Your task to perform on an android device: toggle show notifications on the lock screen Image 0: 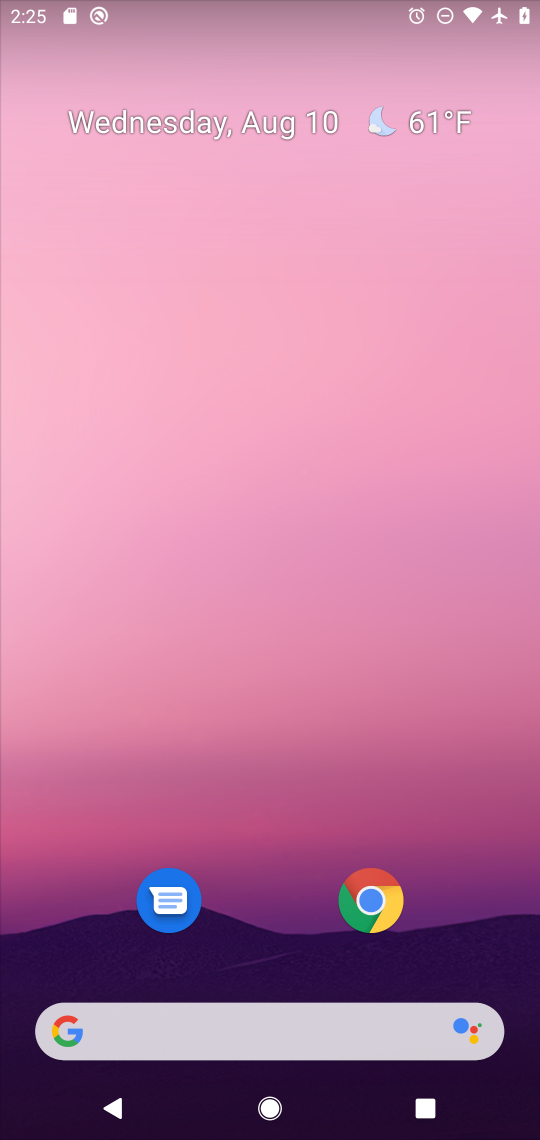
Step 0: drag from (295, 870) to (336, 2)
Your task to perform on an android device: toggle show notifications on the lock screen Image 1: 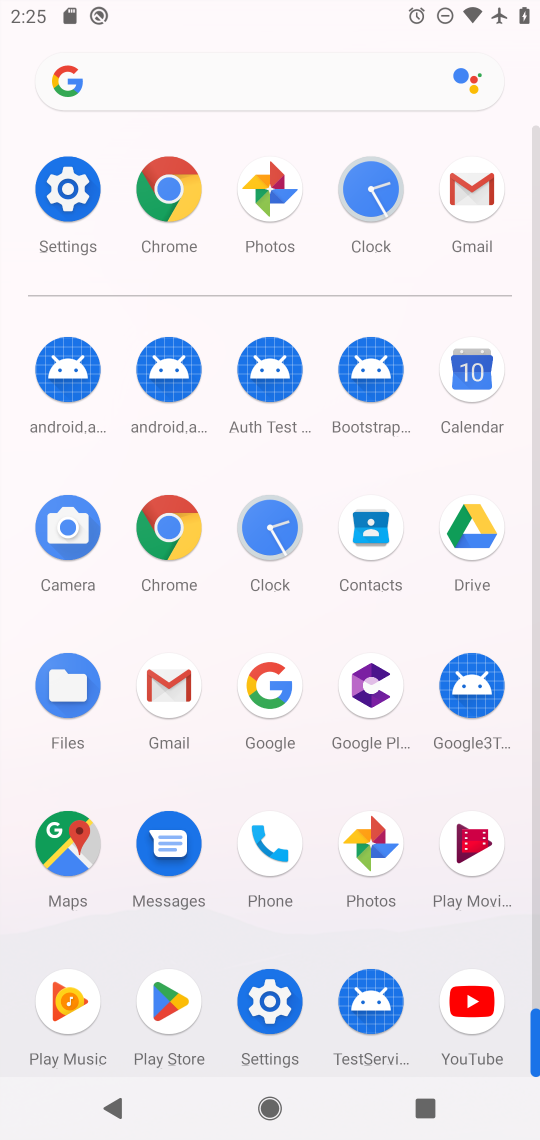
Step 1: click (68, 190)
Your task to perform on an android device: toggle show notifications on the lock screen Image 2: 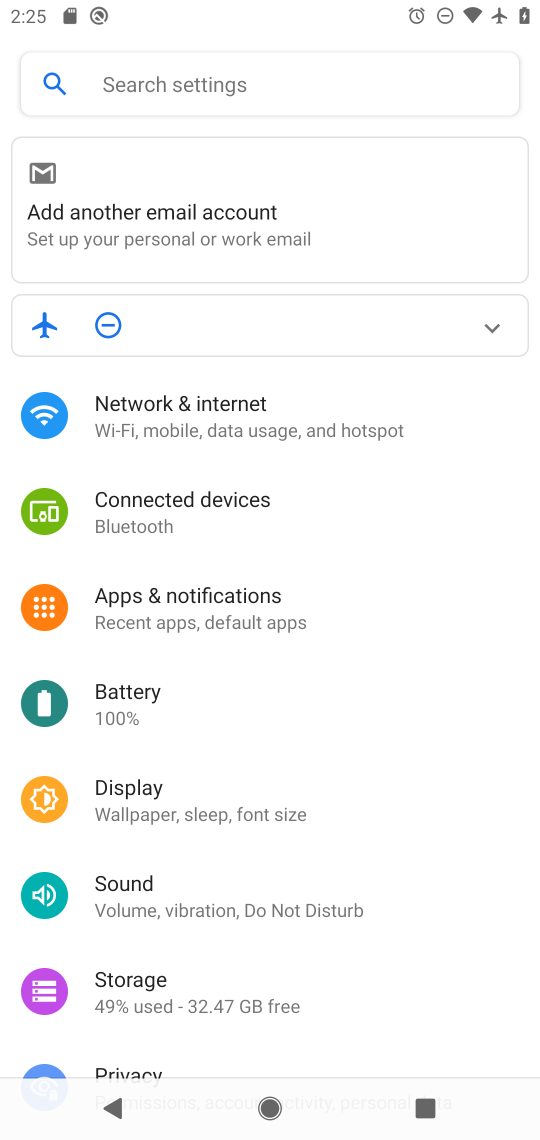
Step 2: click (218, 601)
Your task to perform on an android device: toggle show notifications on the lock screen Image 3: 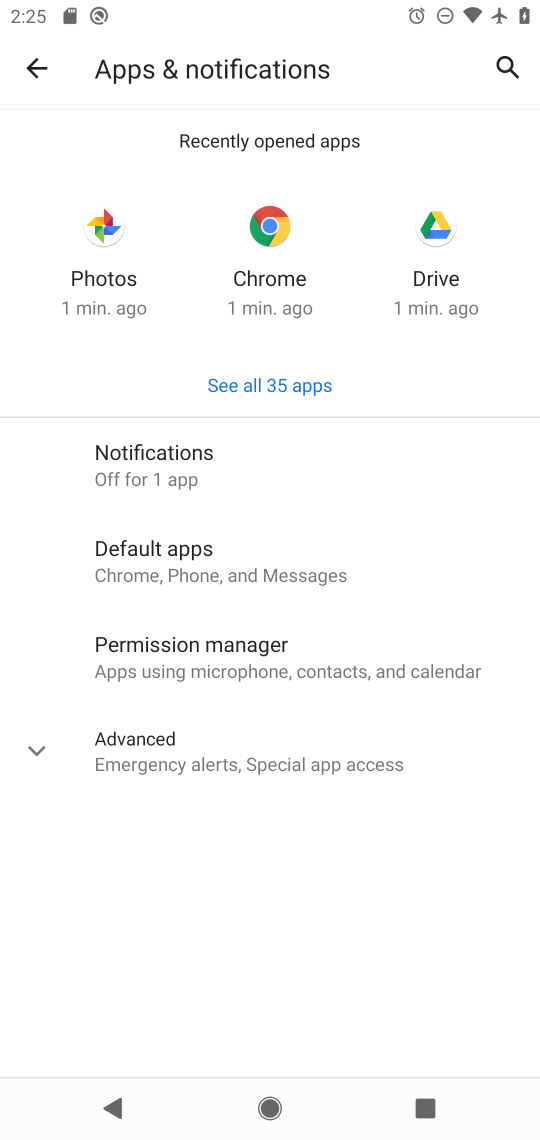
Step 3: click (169, 451)
Your task to perform on an android device: toggle show notifications on the lock screen Image 4: 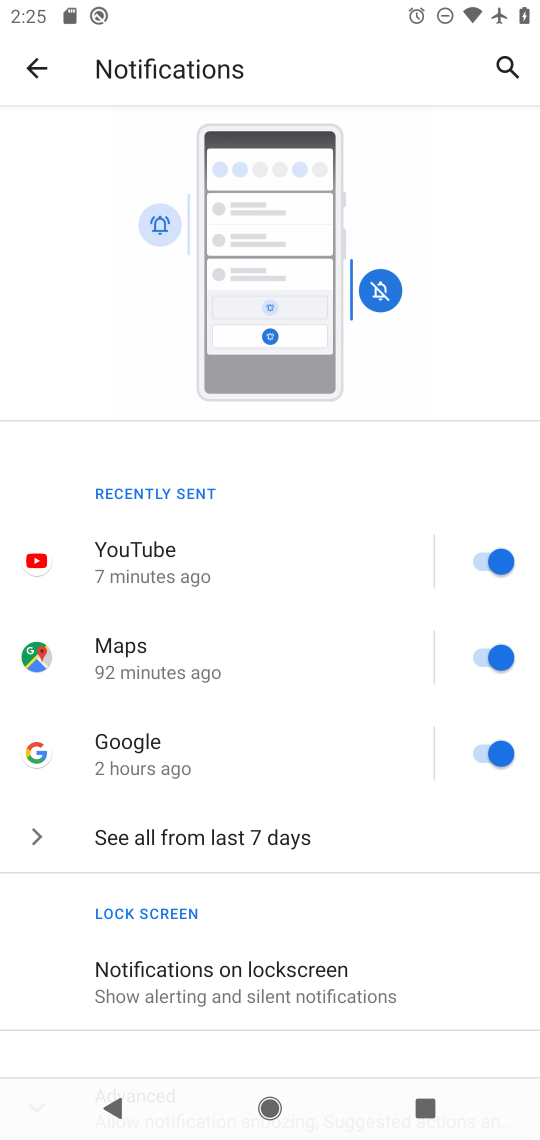
Step 4: click (275, 979)
Your task to perform on an android device: toggle show notifications on the lock screen Image 5: 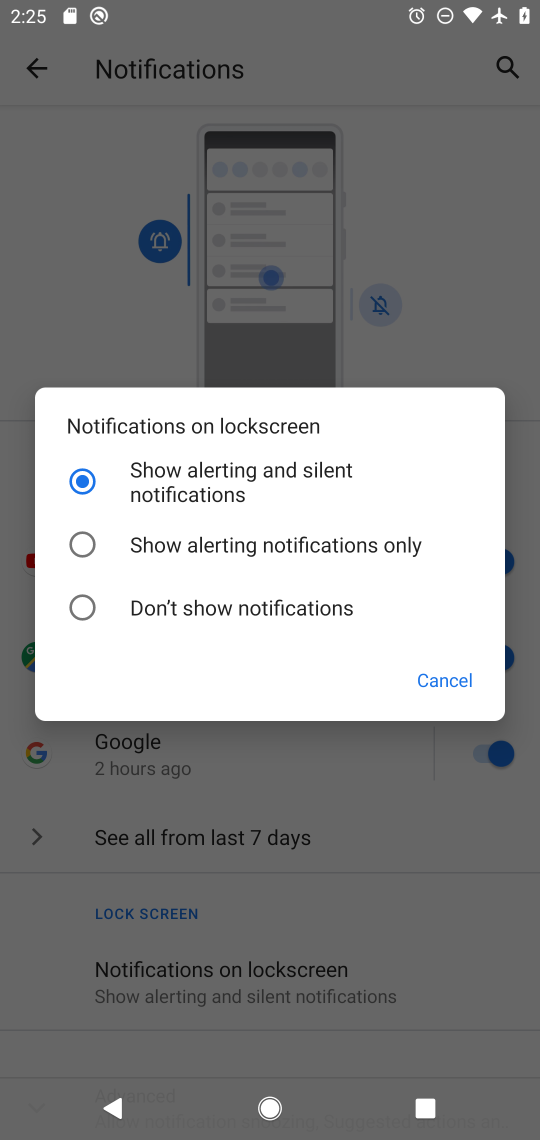
Step 5: click (84, 603)
Your task to perform on an android device: toggle show notifications on the lock screen Image 6: 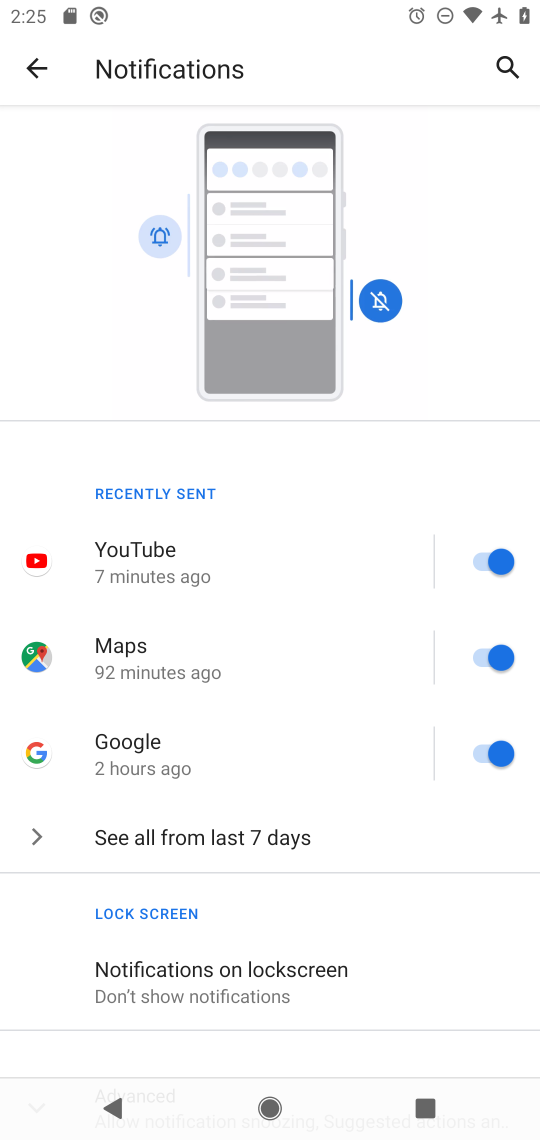
Step 6: task complete